Your task to perform on an android device: open wifi settings Image 0: 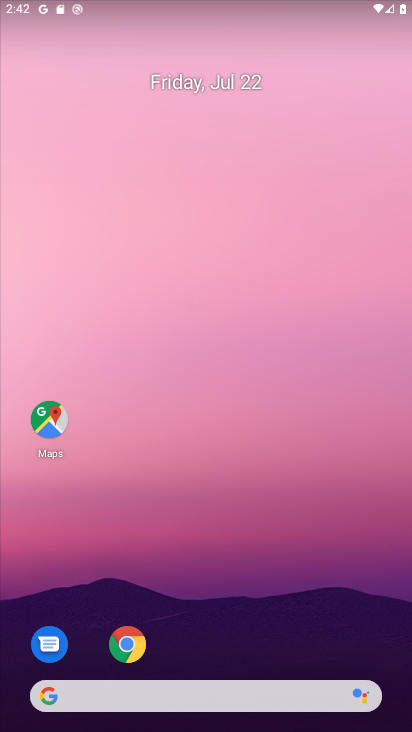
Step 0: drag from (255, 652) to (175, 222)
Your task to perform on an android device: open wifi settings Image 1: 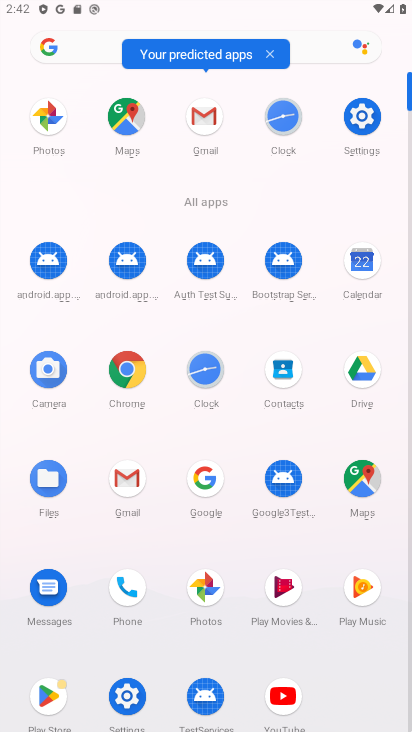
Step 1: click (366, 120)
Your task to perform on an android device: open wifi settings Image 2: 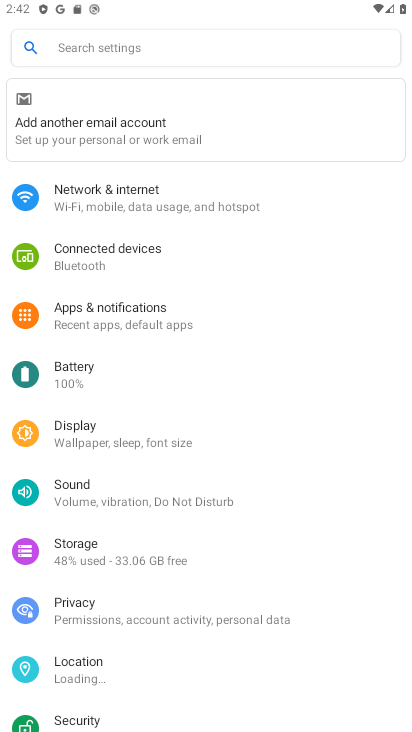
Step 2: click (150, 117)
Your task to perform on an android device: open wifi settings Image 3: 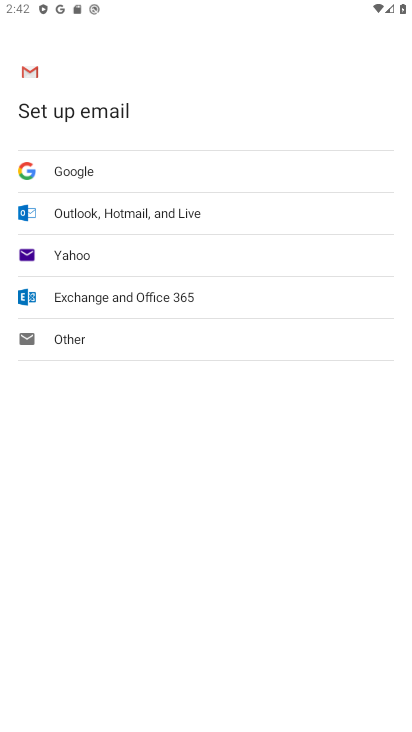
Step 3: press home button
Your task to perform on an android device: open wifi settings Image 4: 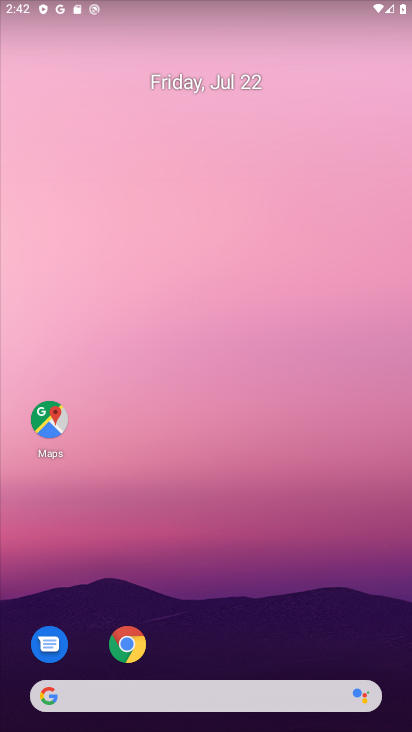
Step 4: drag from (205, 662) to (182, 289)
Your task to perform on an android device: open wifi settings Image 5: 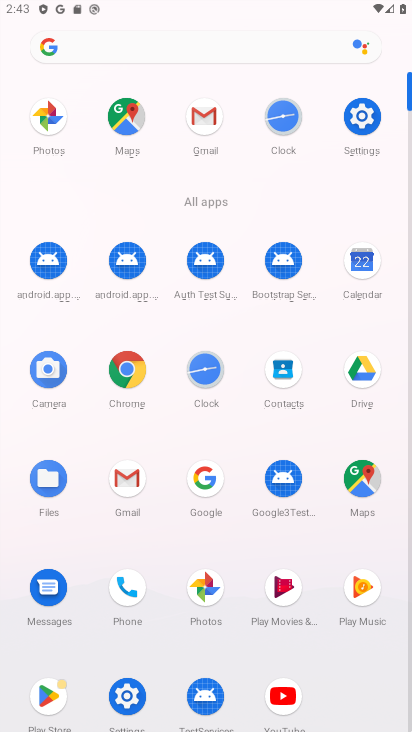
Step 5: click (360, 132)
Your task to perform on an android device: open wifi settings Image 6: 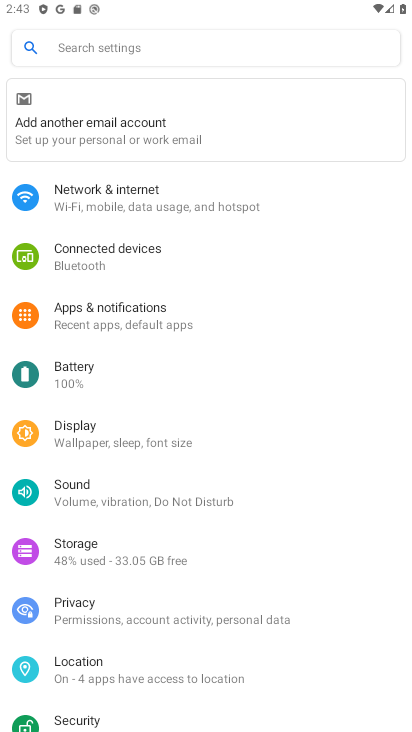
Step 6: click (193, 200)
Your task to perform on an android device: open wifi settings Image 7: 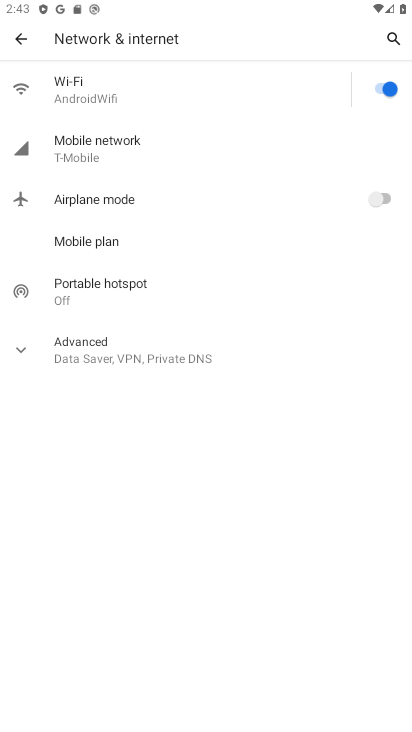
Step 7: click (242, 78)
Your task to perform on an android device: open wifi settings Image 8: 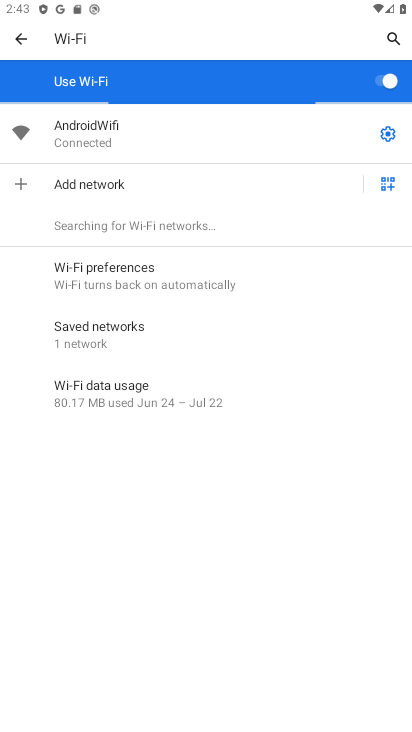
Step 8: task complete